Your task to perform on an android device: check the backup settings in the google photos Image 0: 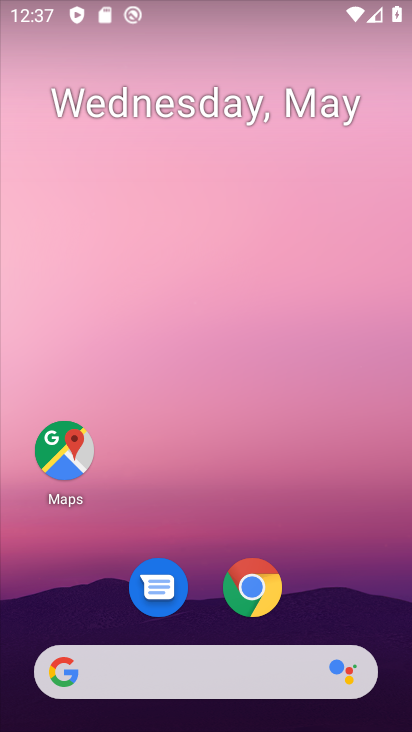
Step 0: drag from (370, 618) to (403, 83)
Your task to perform on an android device: check the backup settings in the google photos Image 1: 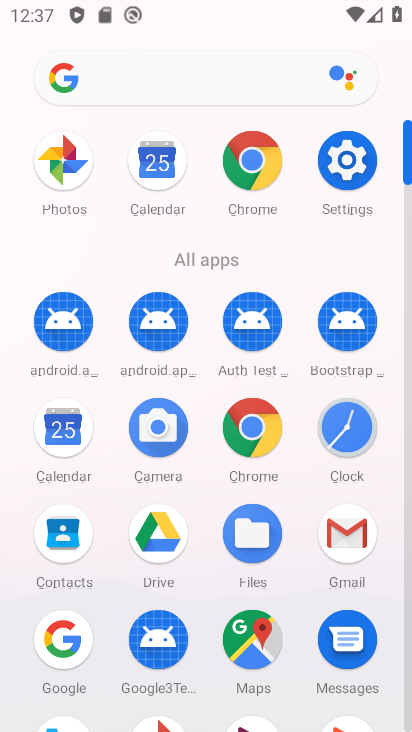
Step 1: drag from (296, 539) to (283, 397)
Your task to perform on an android device: check the backup settings in the google photos Image 2: 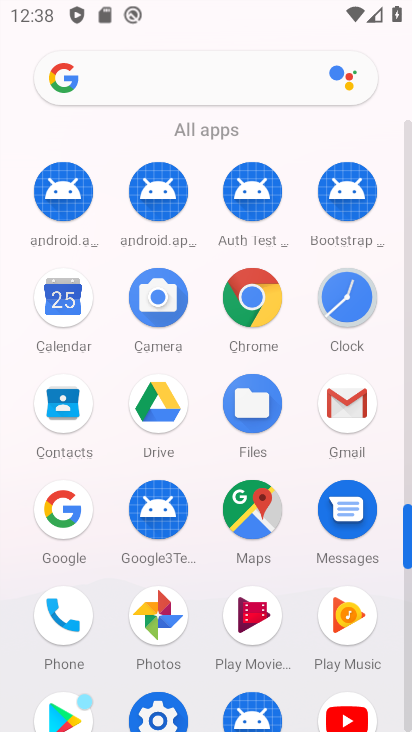
Step 2: click (158, 629)
Your task to perform on an android device: check the backup settings in the google photos Image 3: 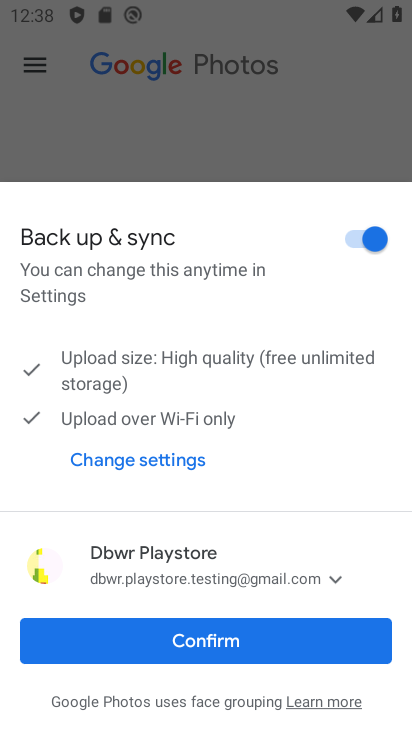
Step 3: click (169, 633)
Your task to perform on an android device: check the backup settings in the google photos Image 4: 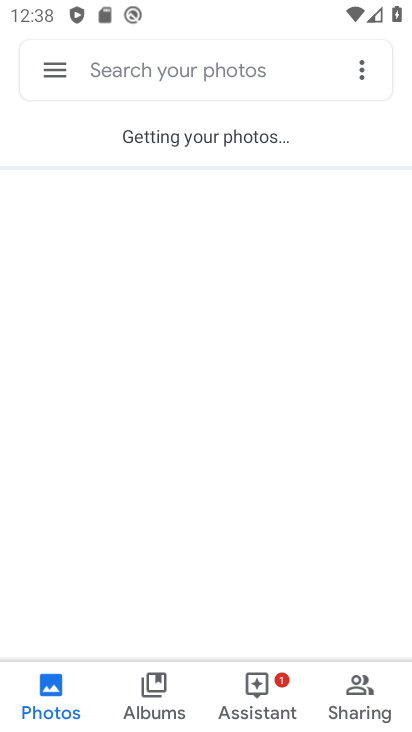
Step 4: click (56, 68)
Your task to perform on an android device: check the backup settings in the google photos Image 5: 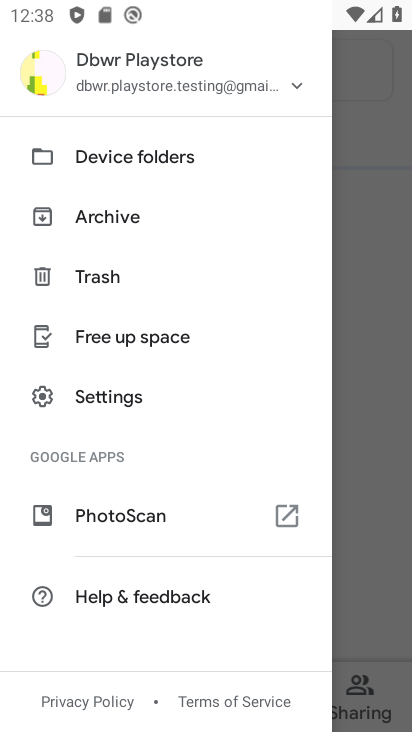
Step 5: click (143, 385)
Your task to perform on an android device: check the backup settings in the google photos Image 6: 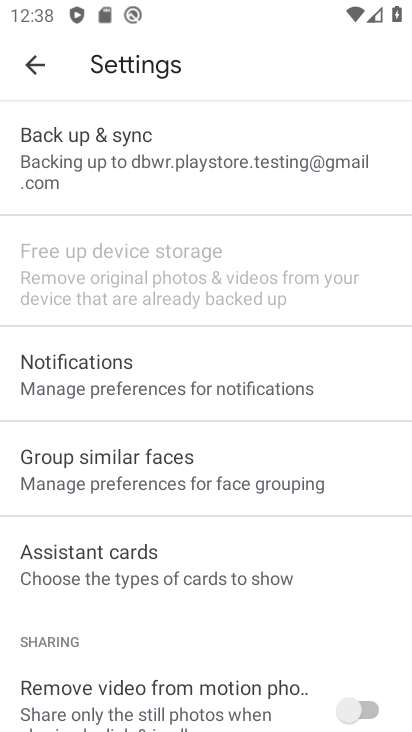
Step 6: click (216, 157)
Your task to perform on an android device: check the backup settings in the google photos Image 7: 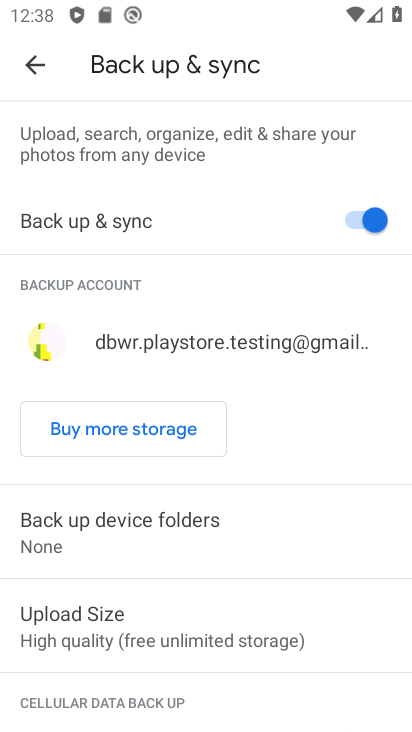
Step 7: task complete